Your task to perform on an android device: Go to Yahoo.com Image 0: 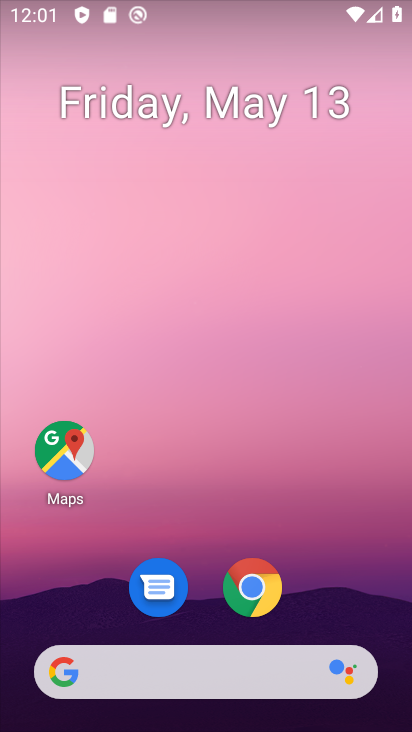
Step 0: click (264, 589)
Your task to perform on an android device: Go to Yahoo.com Image 1: 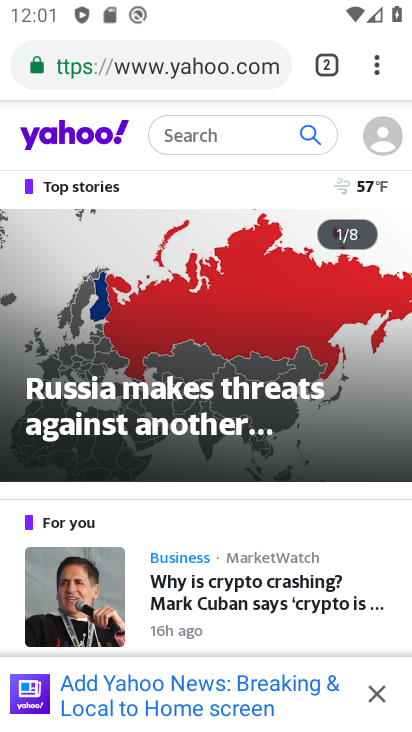
Step 1: task complete